Your task to perform on an android device: See recent photos Image 0: 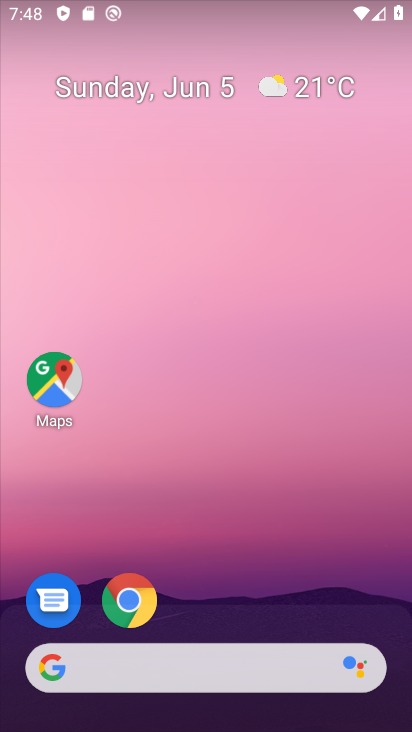
Step 0: drag from (278, 639) to (355, 0)
Your task to perform on an android device: See recent photos Image 1: 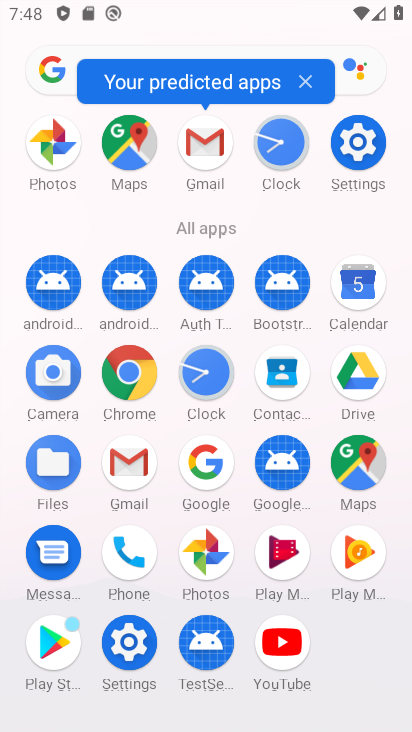
Step 1: click (46, 145)
Your task to perform on an android device: See recent photos Image 2: 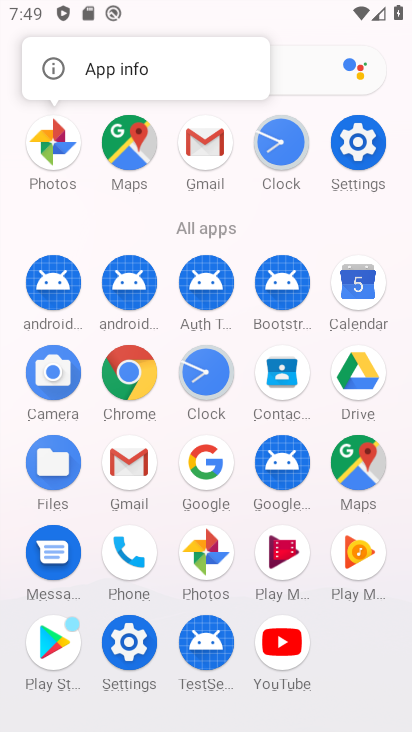
Step 2: click (205, 559)
Your task to perform on an android device: See recent photos Image 3: 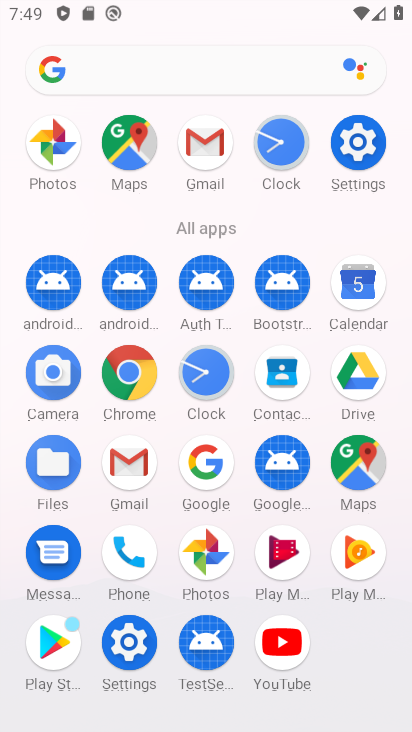
Step 3: click (45, 153)
Your task to perform on an android device: See recent photos Image 4: 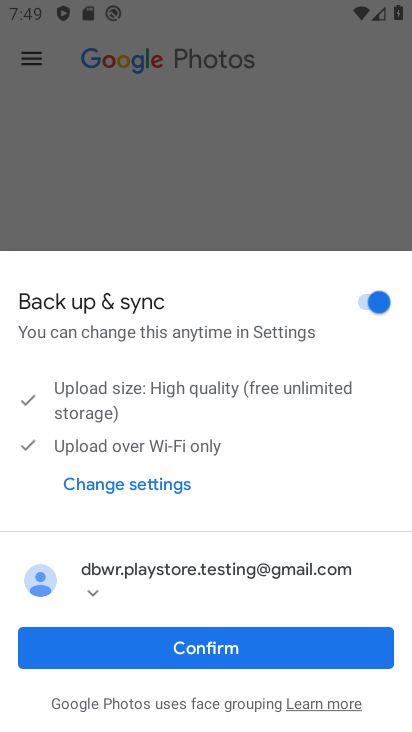
Step 4: click (219, 640)
Your task to perform on an android device: See recent photos Image 5: 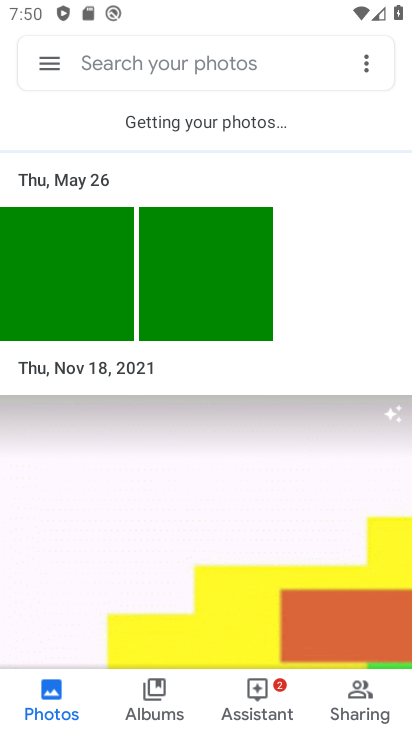
Step 5: task complete